Your task to perform on an android device: Play the last video I watched on Youtube Image 0: 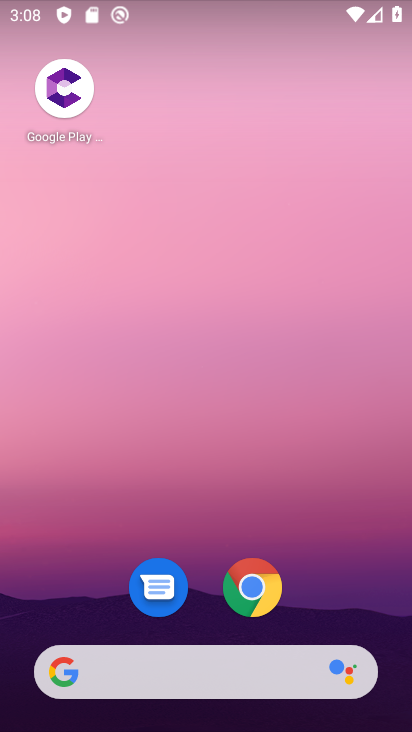
Step 0: press home button
Your task to perform on an android device: Play the last video I watched on Youtube Image 1: 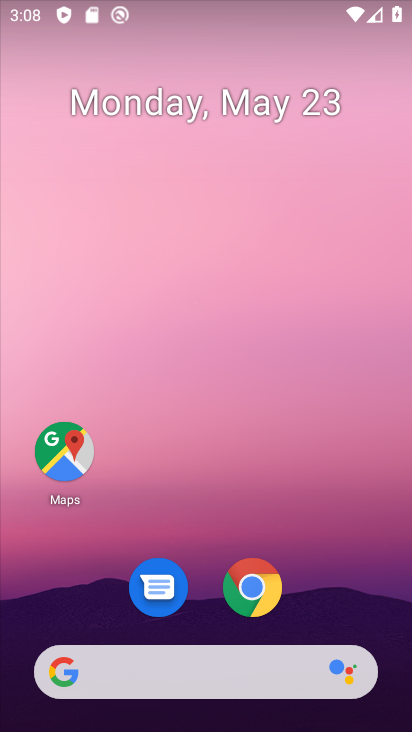
Step 1: drag from (197, 664) to (343, 140)
Your task to perform on an android device: Play the last video I watched on Youtube Image 2: 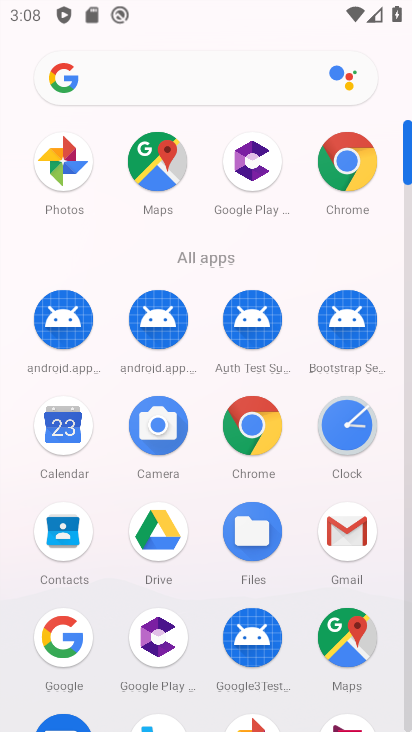
Step 2: drag from (217, 686) to (345, 167)
Your task to perform on an android device: Play the last video I watched on Youtube Image 3: 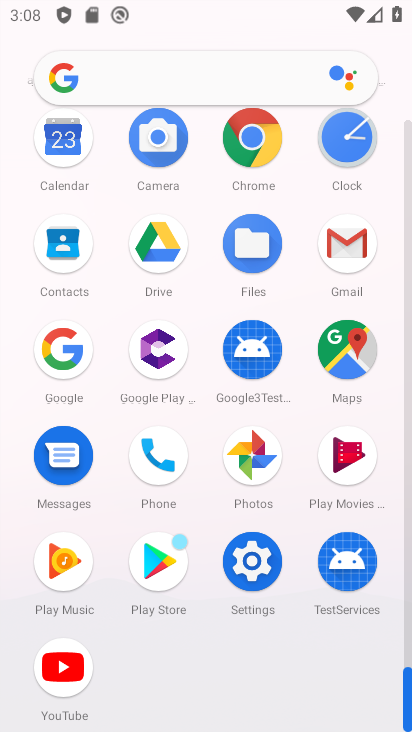
Step 3: click (62, 679)
Your task to perform on an android device: Play the last video I watched on Youtube Image 4: 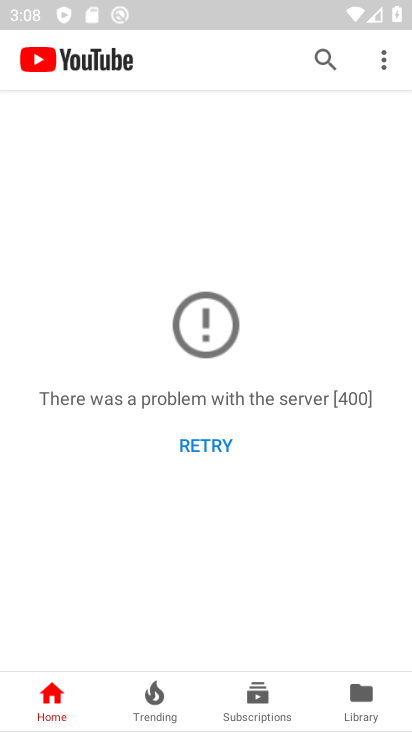
Step 4: click (213, 443)
Your task to perform on an android device: Play the last video I watched on Youtube Image 5: 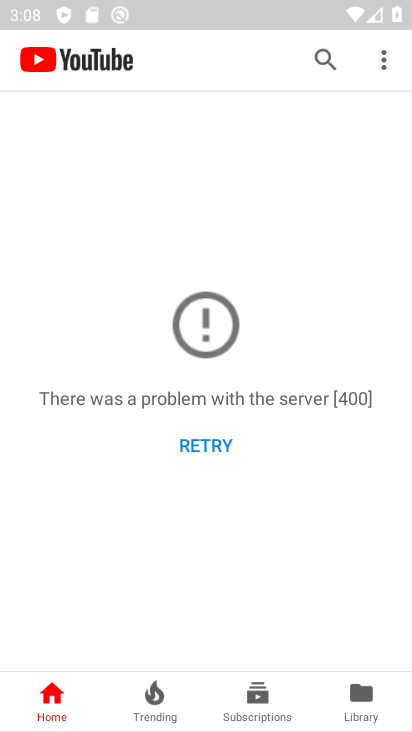
Step 5: click (213, 443)
Your task to perform on an android device: Play the last video I watched on Youtube Image 6: 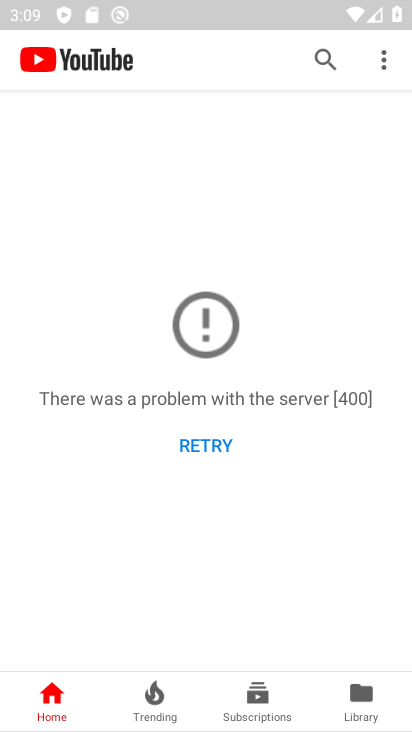
Step 6: task complete